Your task to perform on an android device: all mails in gmail Image 0: 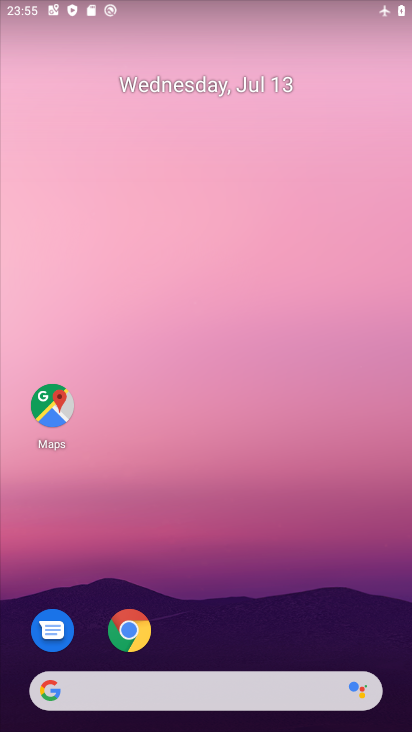
Step 0: drag from (329, 643) to (329, 229)
Your task to perform on an android device: all mails in gmail Image 1: 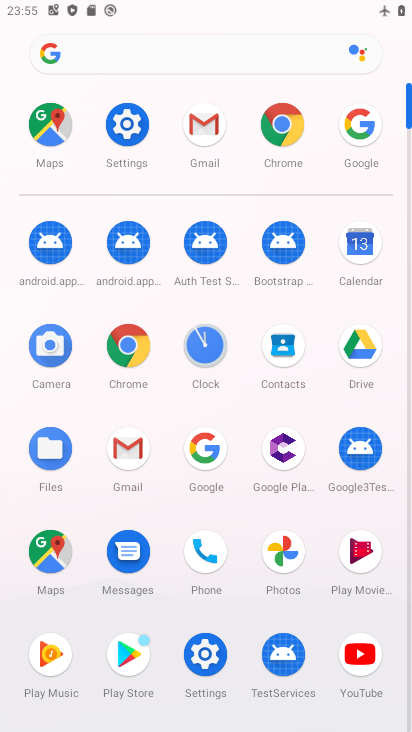
Step 1: click (124, 437)
Your task to perform on an android device: all mails in gmail Image 2: 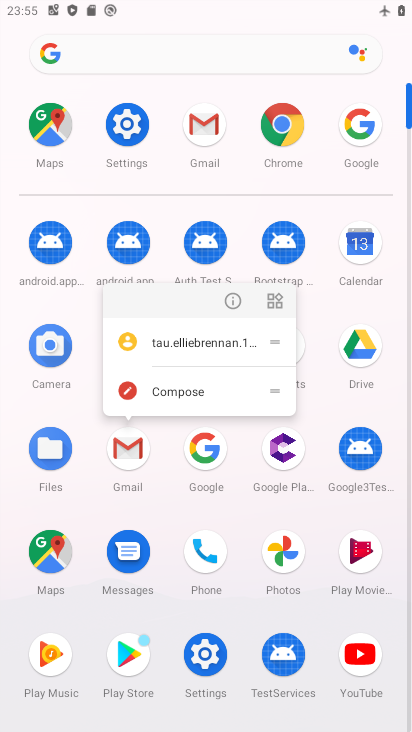
Step 2: click (126, 437)
Your task to perform on an android device: all mails in gmail Image 3: 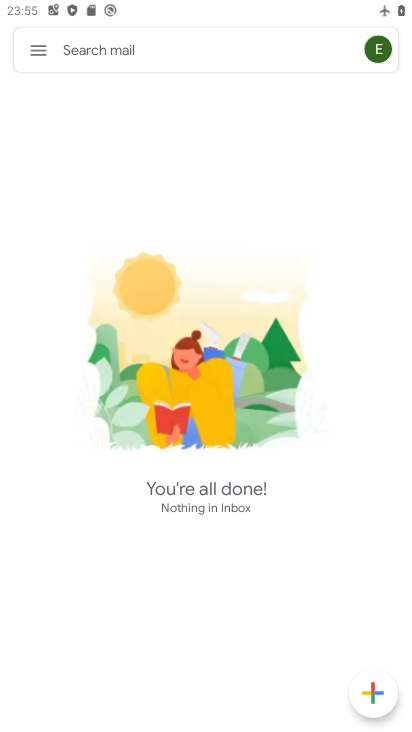
Step 3: click (40, 50)
Your task to perform on an android device: all mails in gmail Image 4: 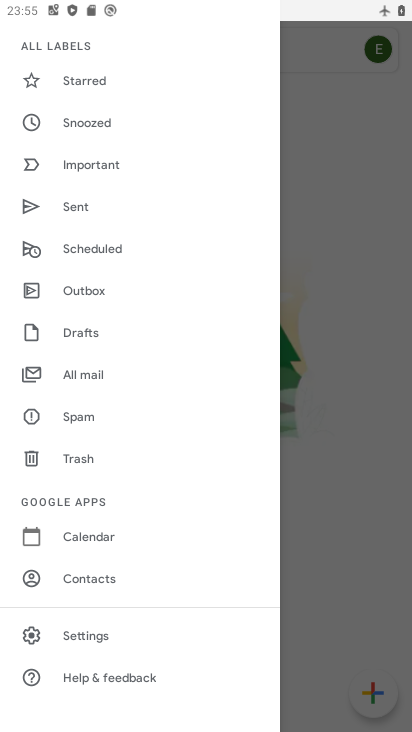
Step 4: drag from (172, 474) to (173, 353)
Your task to perform on an android device: all mails in gmail Image 5: 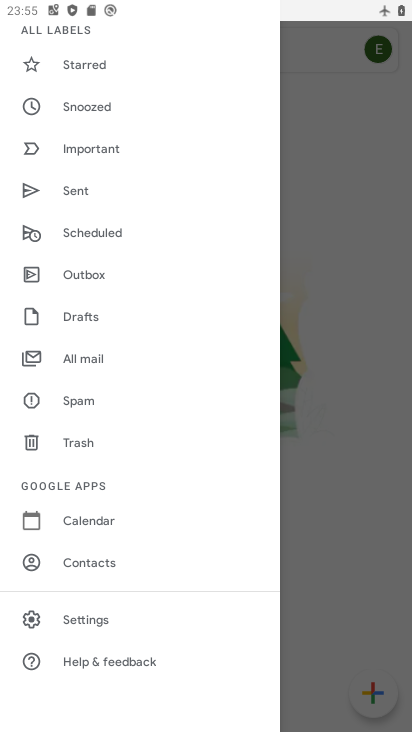
Step 5: drag from (179, 374) to (188, 337)
Your task to perform on an android device: all mails in gmail Image 6: 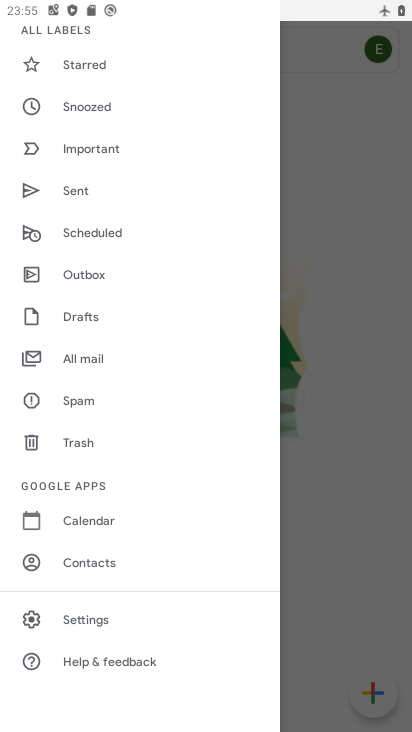
Step 6: drag from (205, 478) to (206, 357)
Your task to perform on an android device: all mails in gmail Image 7: 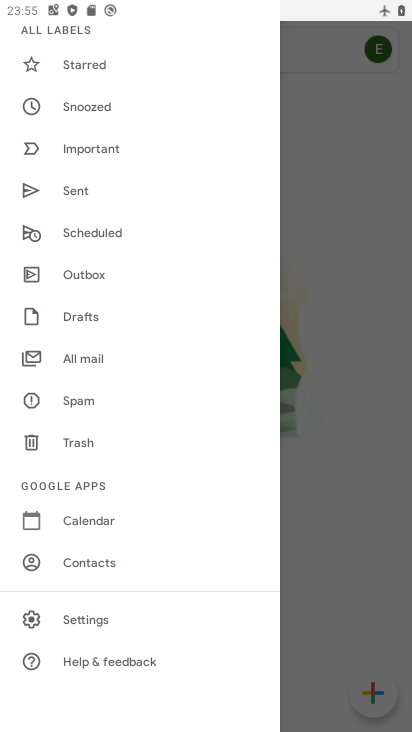
Step 7: click (136, 365)
Your task to perform on an android device: all mails in gmail Image 8: 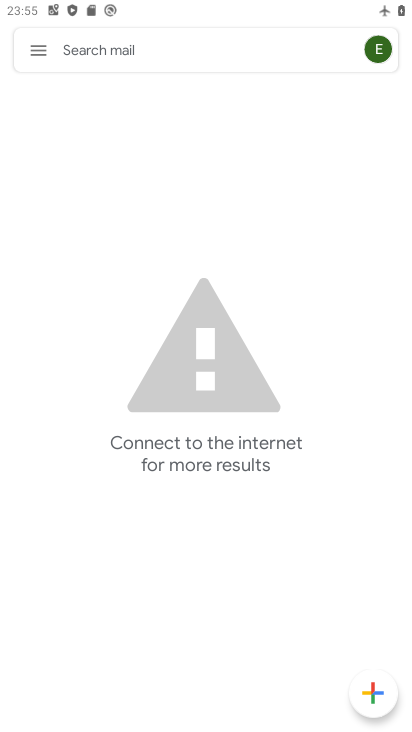
Step 8: press home button
Your task to perform on an android device: all mails in gmail Image 9: 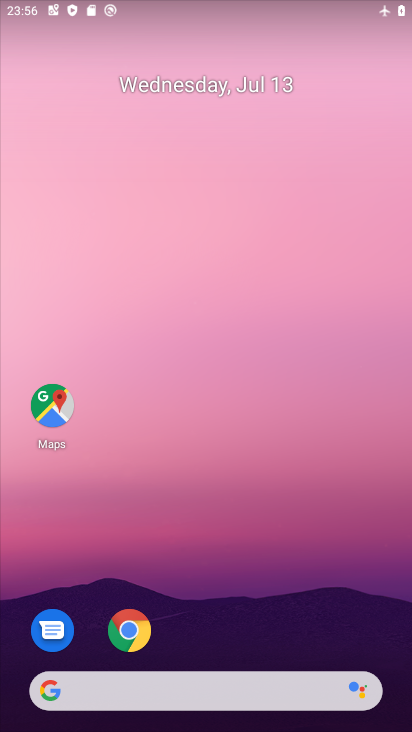
Step 9: drag from (294, 625) to (303, 168)
Your task to perform on an android device: all mails in gmail Image 10: 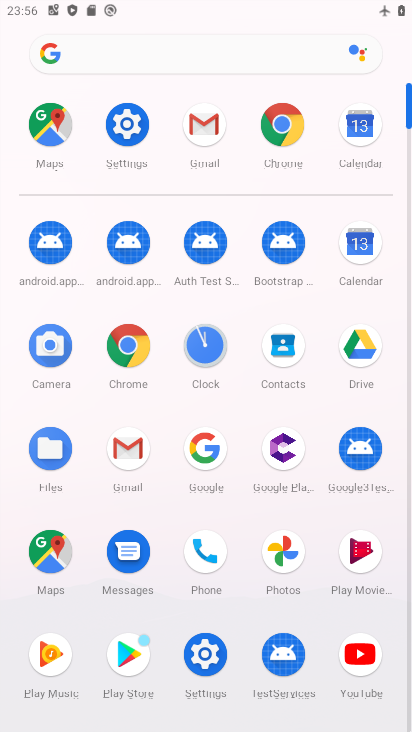
Step 10: click (140, 448)
Your task to perform on an android device: all mails in gmail Image 11: 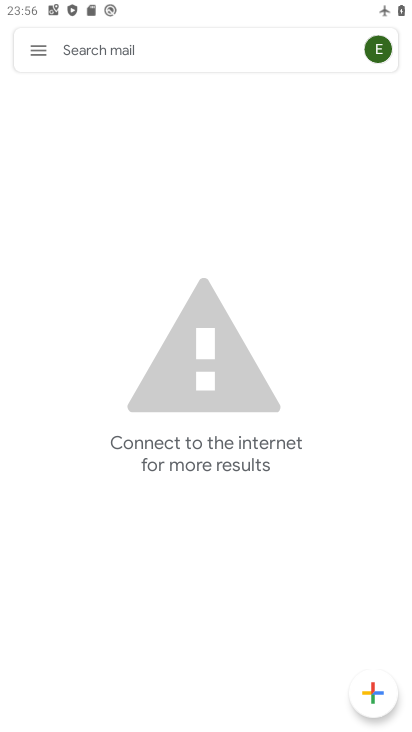
Step 11: click (50, 52)
Your task to perform on an android device: all mails in gmail Image 12: 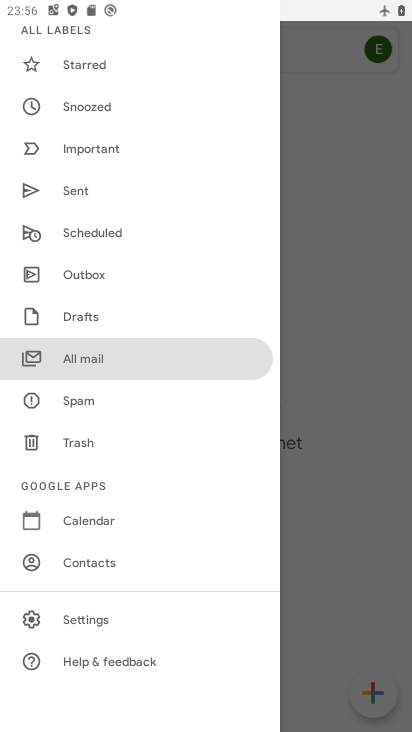
Step 12: click (138, 357)
Your task to perform on an android device: all mails in gmail Image 13: 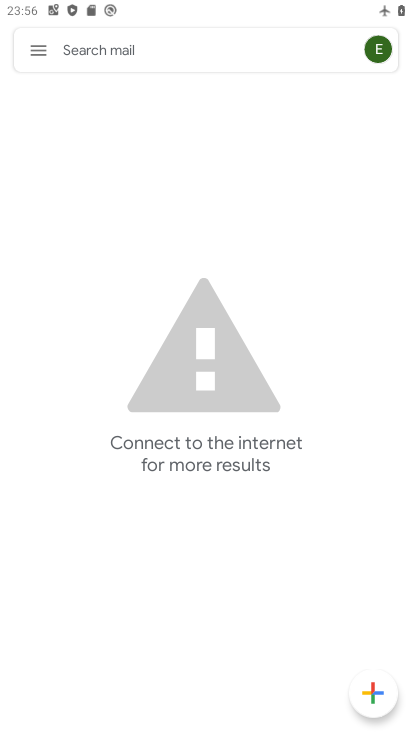
Step 13: task complete